Your task to perform on an android device: Clear all items from cart on walmart. Search for "logitech g903" on walmart, select the first entry, add it to the cart, then select checkout. Image 0: 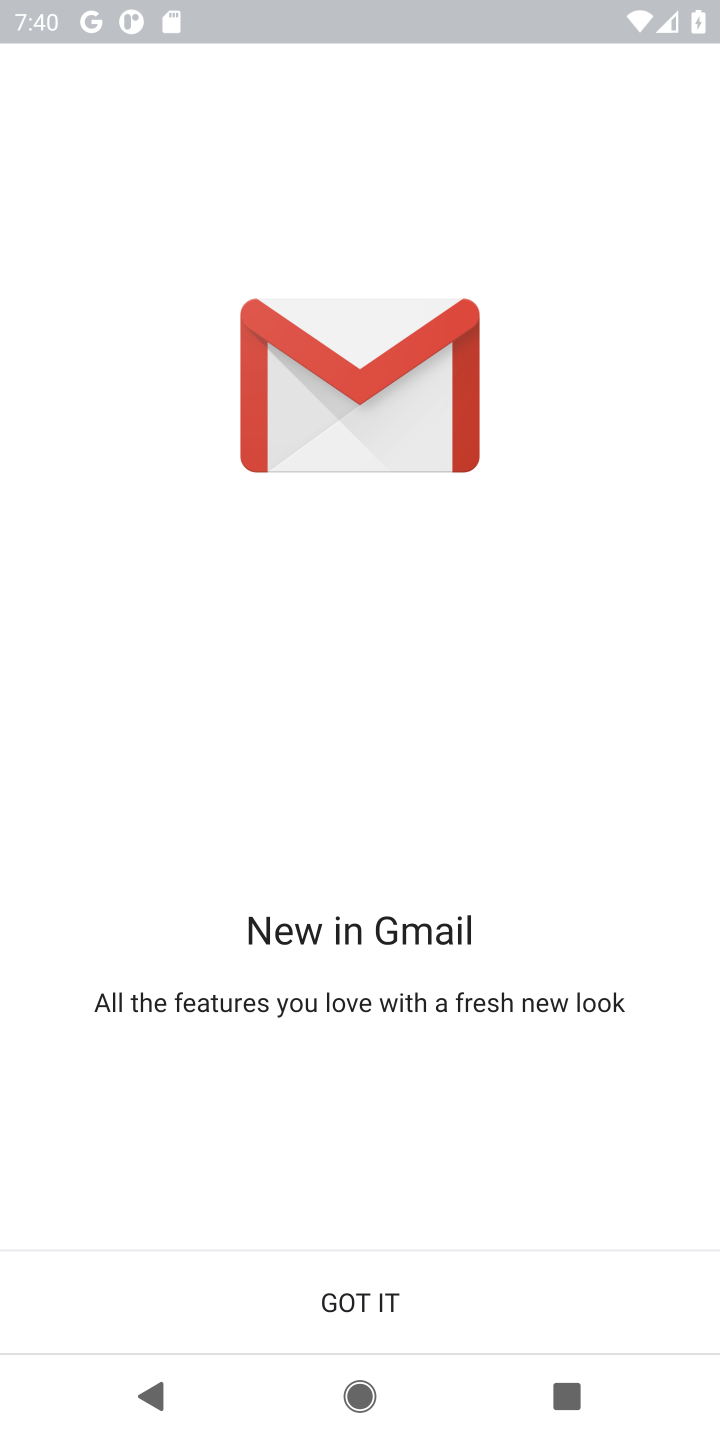
Step 0: press home button
Your task to perform on an android device: Clear all items from cart on walmart. Search for "logitech g903" on walmart, select the first entry, add it to the cart, then select checkout. Image 1: 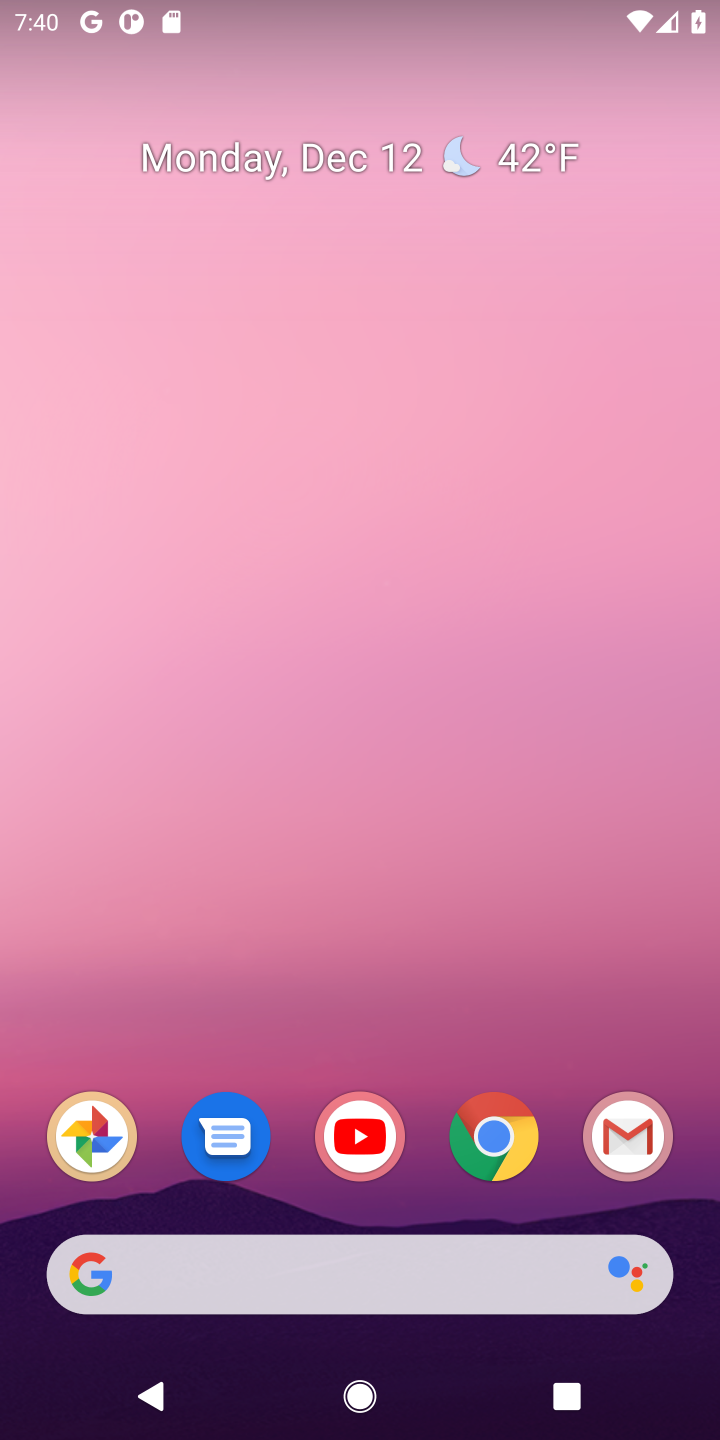
Step 1: click (506, 1156)
Your task to perform on an android device: Clear all items from cart on walmart. Search for "logitech g903" on walmart, select the first entry, add it to the cart, then select checkout. Image 2: 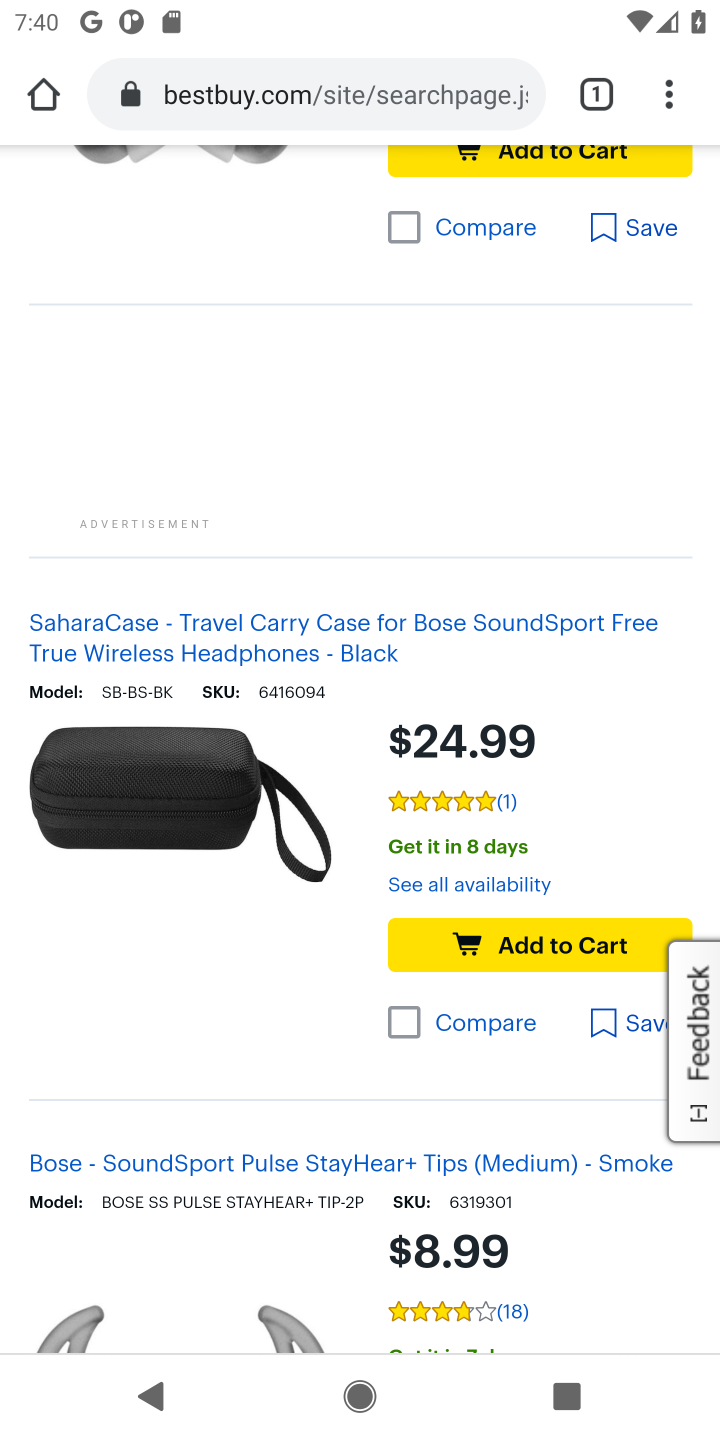
Step 2: click (339, 88)
Your task to perform on an android device: Clear all items from cart on walmart. Search for "logitech g903" on walmart, select the first entry, add it to the cart, then select checkout. Image 3: 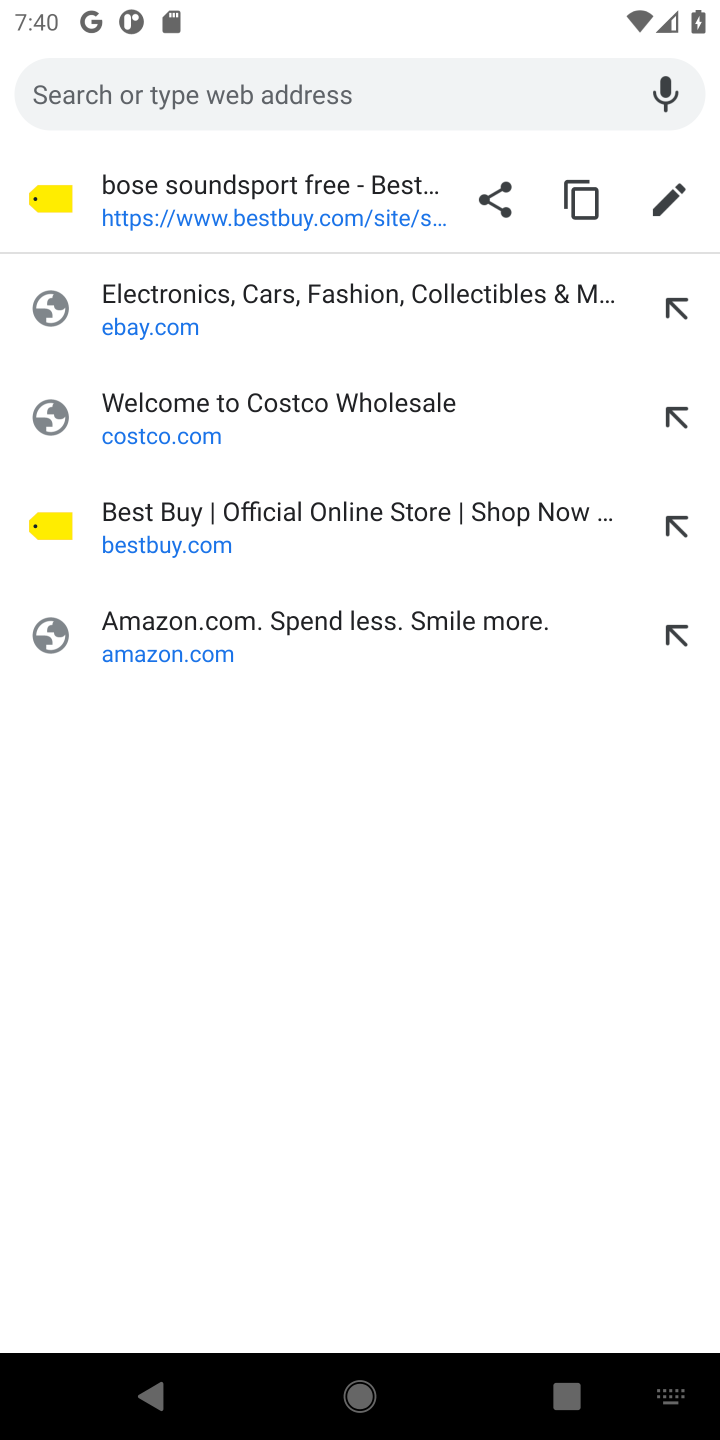
Step 3: type "walmart.com"
Your task to perform on an android device: Clear all items from cart on walmart. Search for "logitech g903" on walmart, select the first entry, add it to the cart, then select checkout. Image 4: 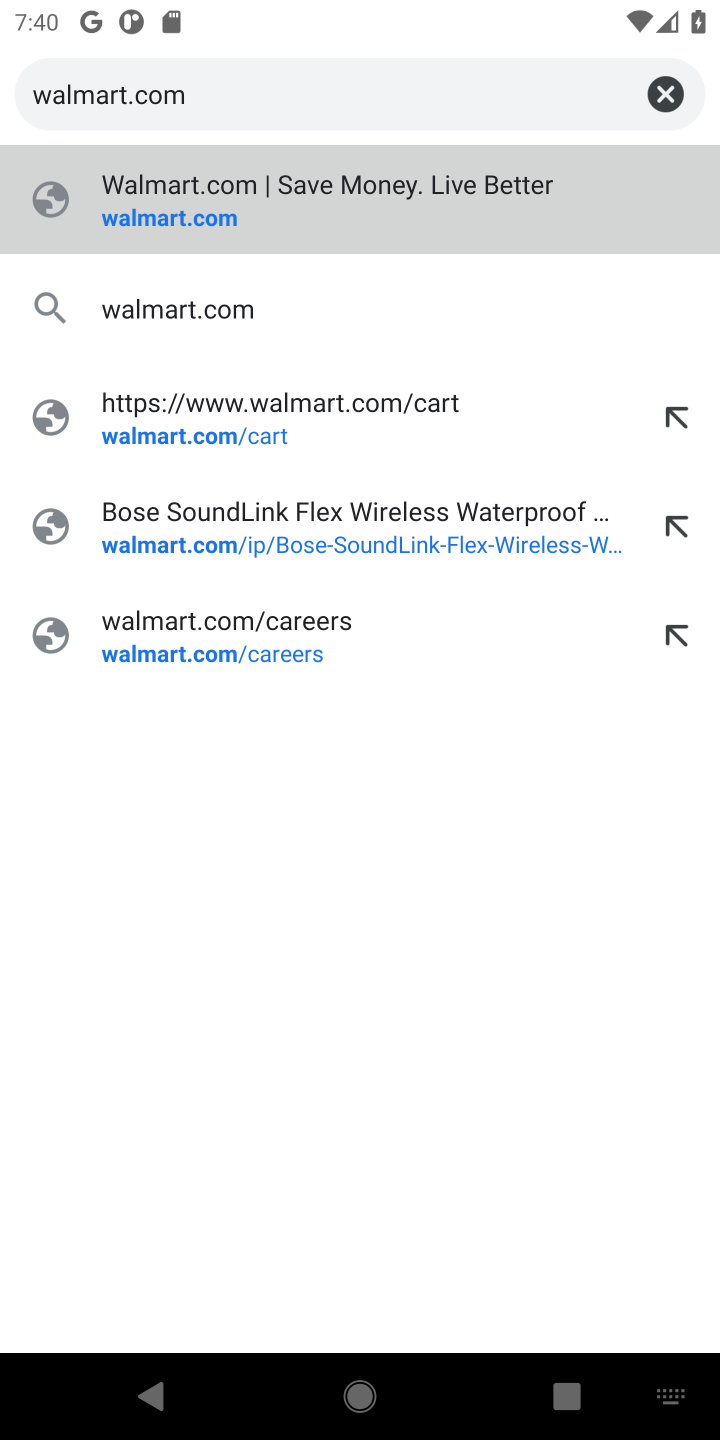
Step 4: click (181, 235)
Your task to perform on an android device: Clear all items from cart on walmart. Search for "logitech g903" on walmart, select the first entry, add it to the cart, then select checkout. Image 5: 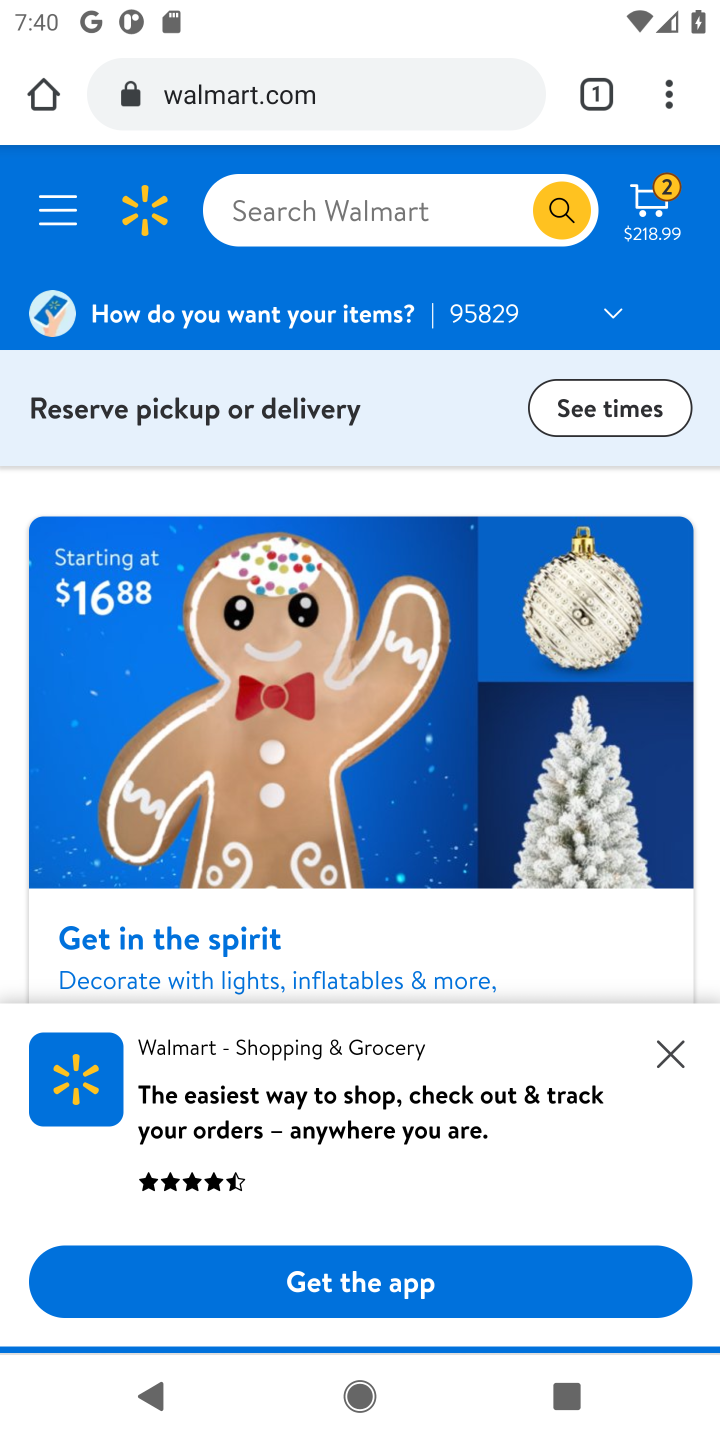
Step 5: click (638, 218)
Your task to perform on an android device: Clear all items from cart on walmart. Search for "logitech g903" on walmart, select the first entry, add it to the cart, then select checkout. Image 6: 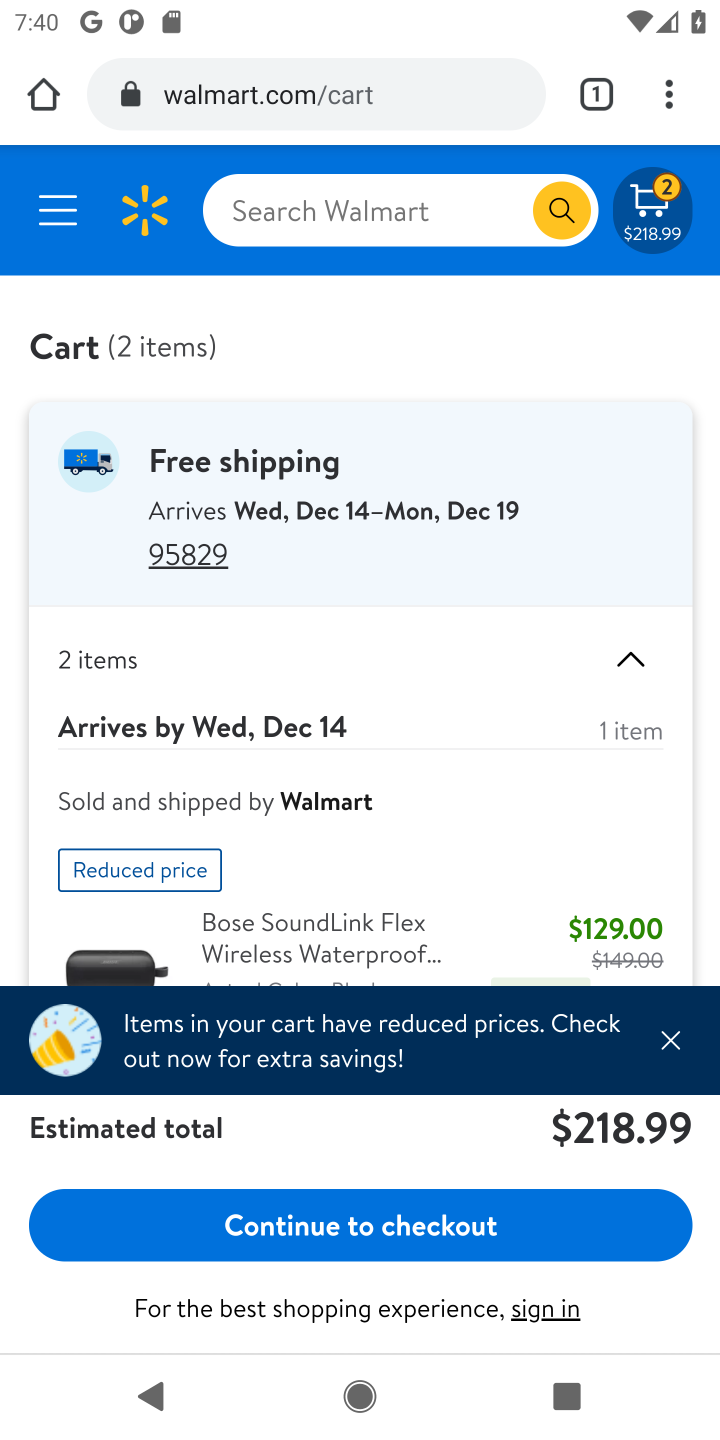
Step 6: drag from (317, 728) to (332, 366)
Your task to perform on an android device: Clear all items from cart on walmart. Search for "logitech g903" on walmart, select the first entry, add it to the cart, then select checkout. Image 7: 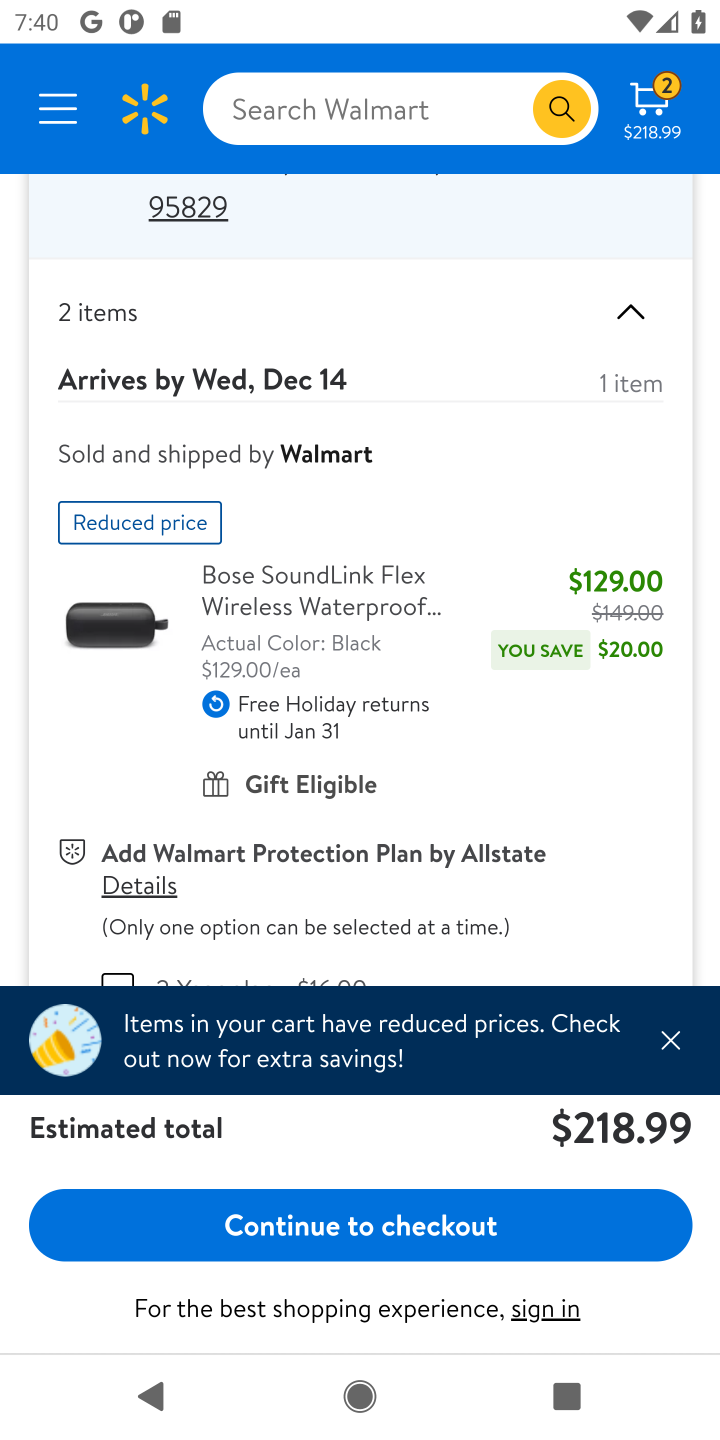
Step 7: drag from (170, 690) to (149, 389)
Your task to perform on an android device: Clear all items from cart on walmart. Search for "logitech g903" on walmart, select the first entry, add it to the cart, then select checkout. Image 8: 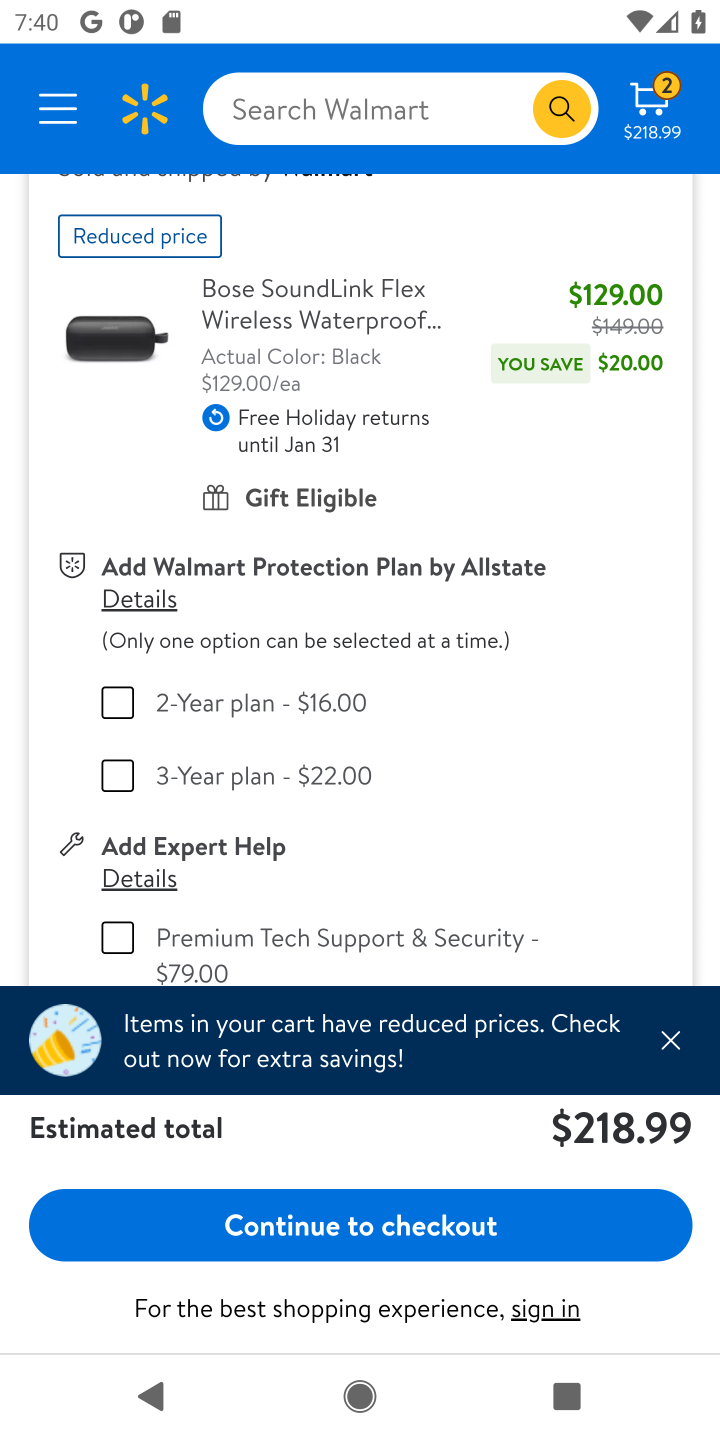
Step 8: drag from (362, 793) to (350, 442)
Your task to perform on an android device: Clear all items from cart on walmart. Search for "logitech g903" on walmart, select the first entry, add it to the cart, then select checkout. Image 9: 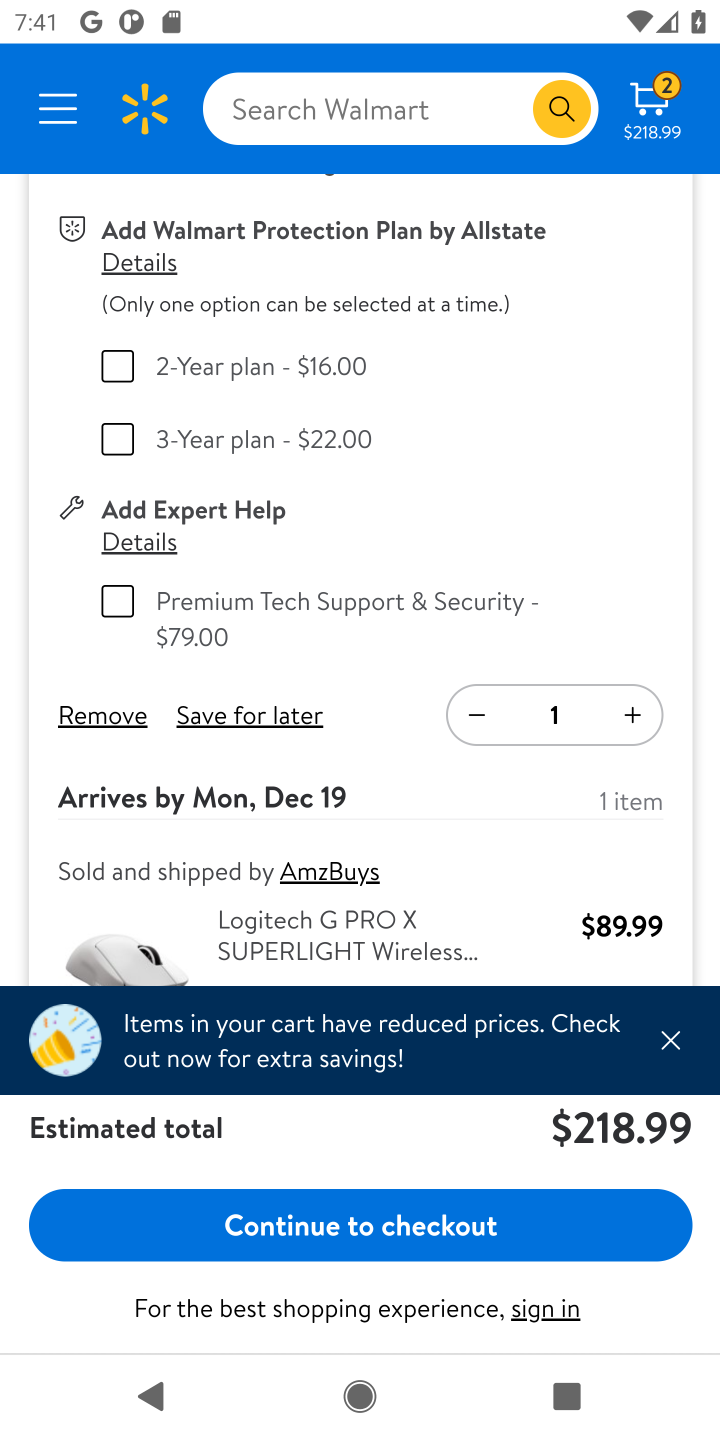
Step 9: click (82, 725)
Your task to perform on an android device: Clear all items from cart on walmart. Search for "logitech g903" on walmart, select the first entry, add it to the cart, then select checkout. Image 10: 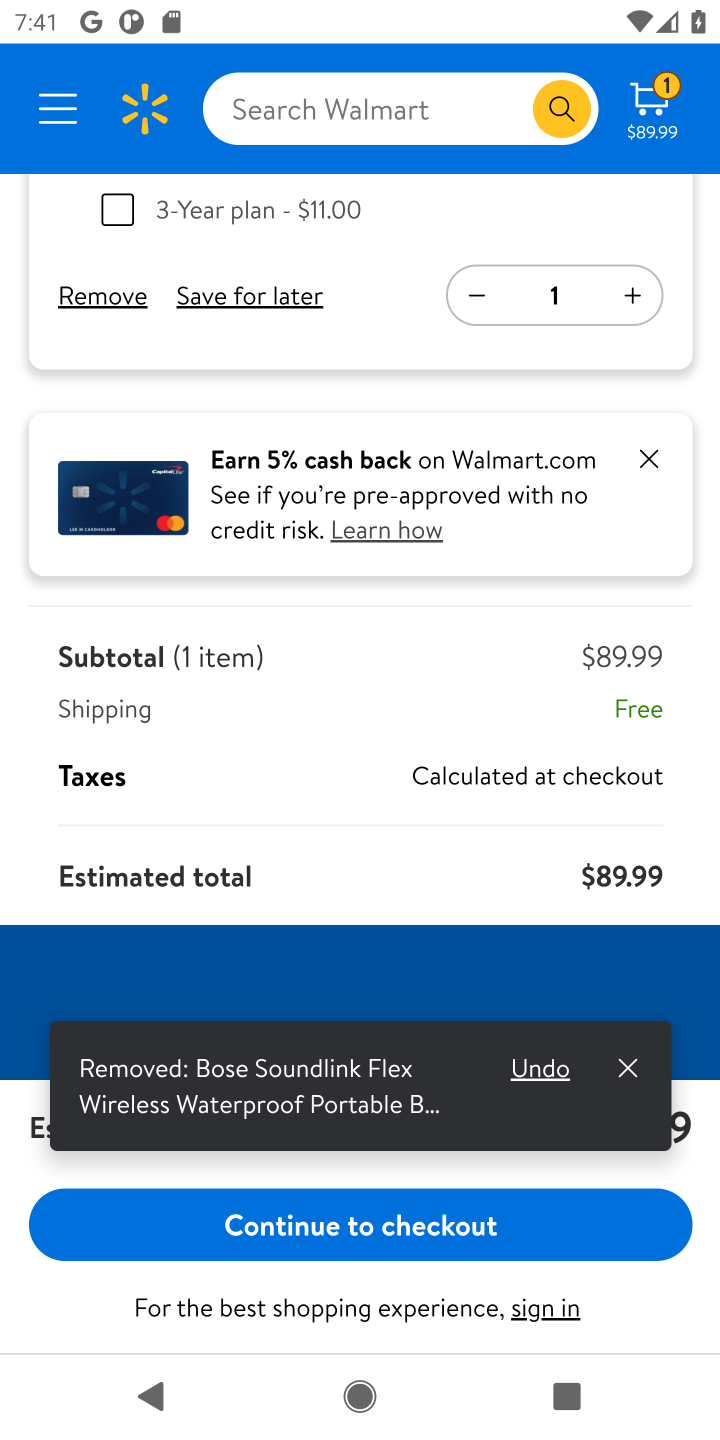
Step 10: click (75, 299)
Your task to perform on an android device: Clear all items from cart on walmart. Search for "logitech g903" on walmart, select the first entry, add it to the cart, then select checkout. Image 11: 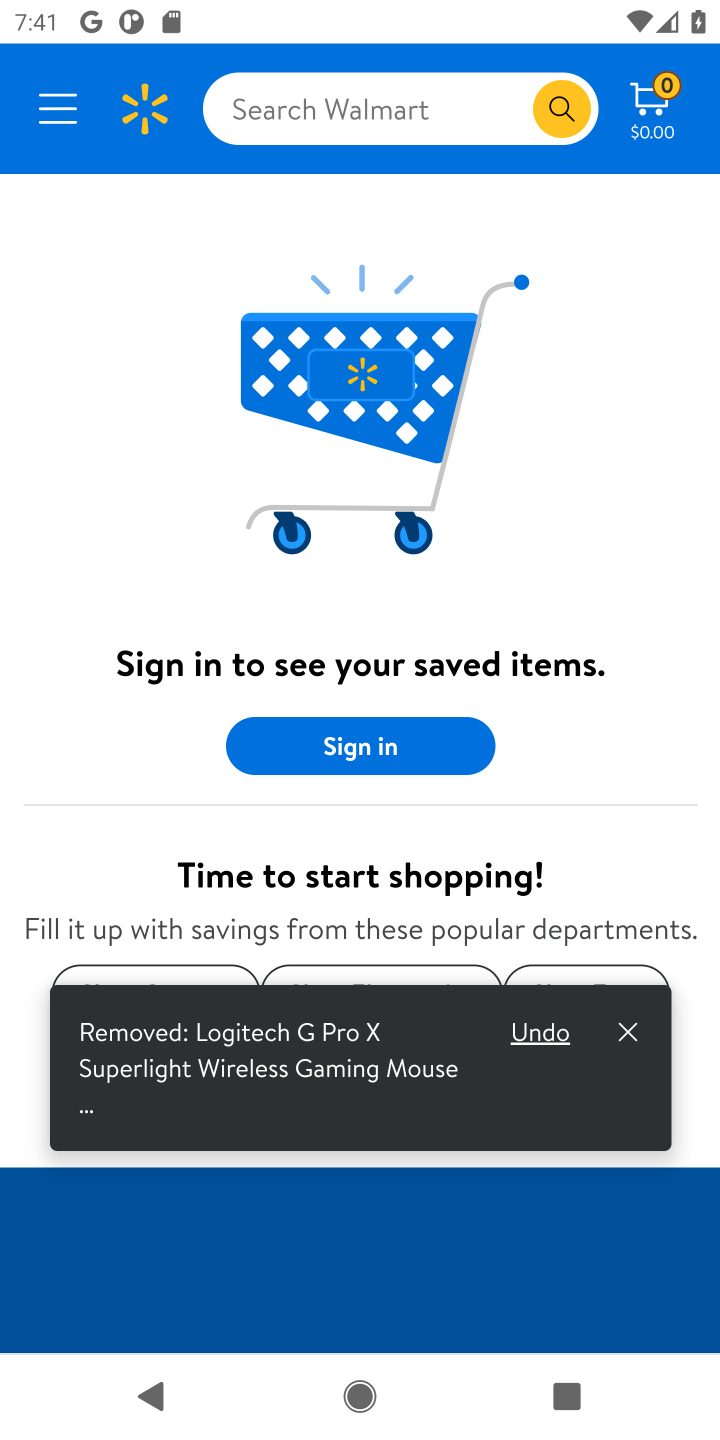
Step 11: drag from (275, 872) to (280, 547)
Your task to perform on an android device: Clear all items from cart on walmart. Search for "logitech g903" on walmart, select the first entry, add it to the cart, then select checkout. Image 12: 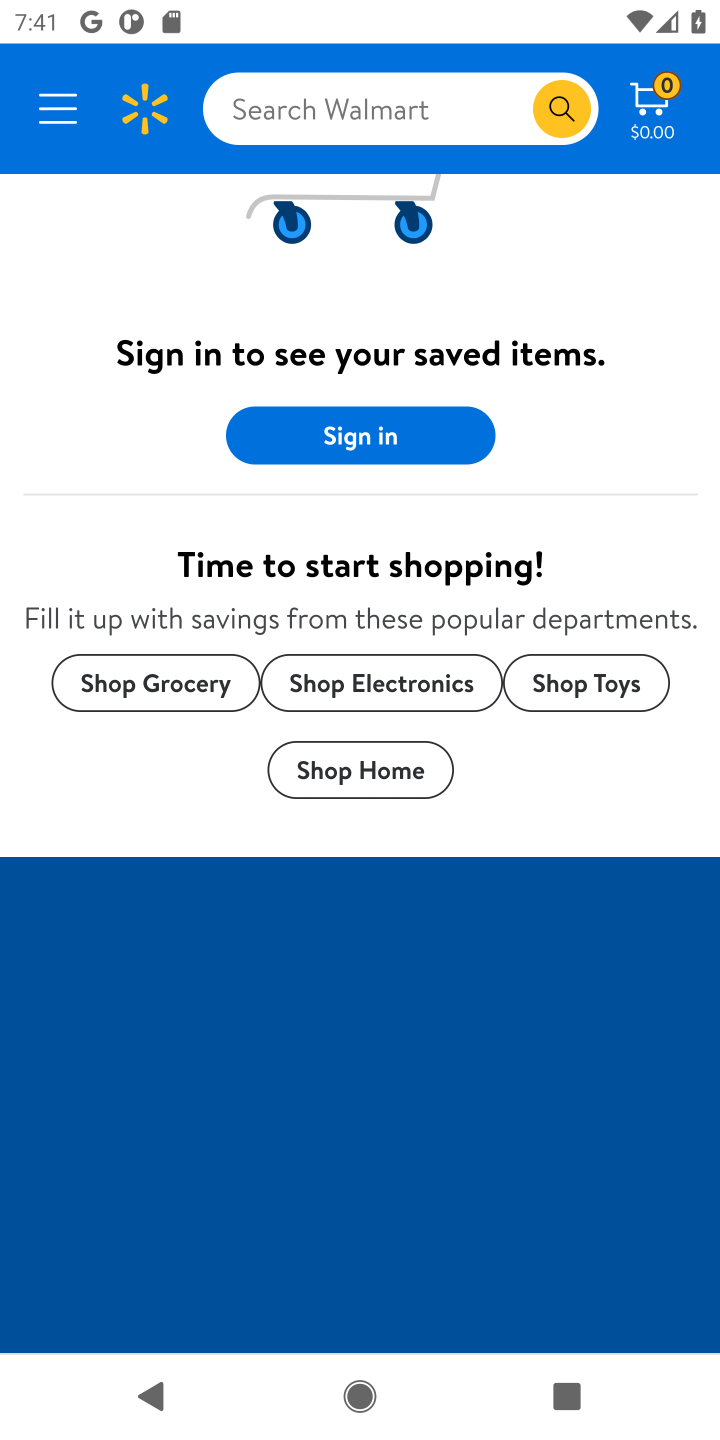
Step 12: click (320, 111)
Your task to perform on an android device: Clear all items from cart on walmart. Search for "logitech g903" on walmart, select the first entry, add it to the cart, then select checkout. Image 13: 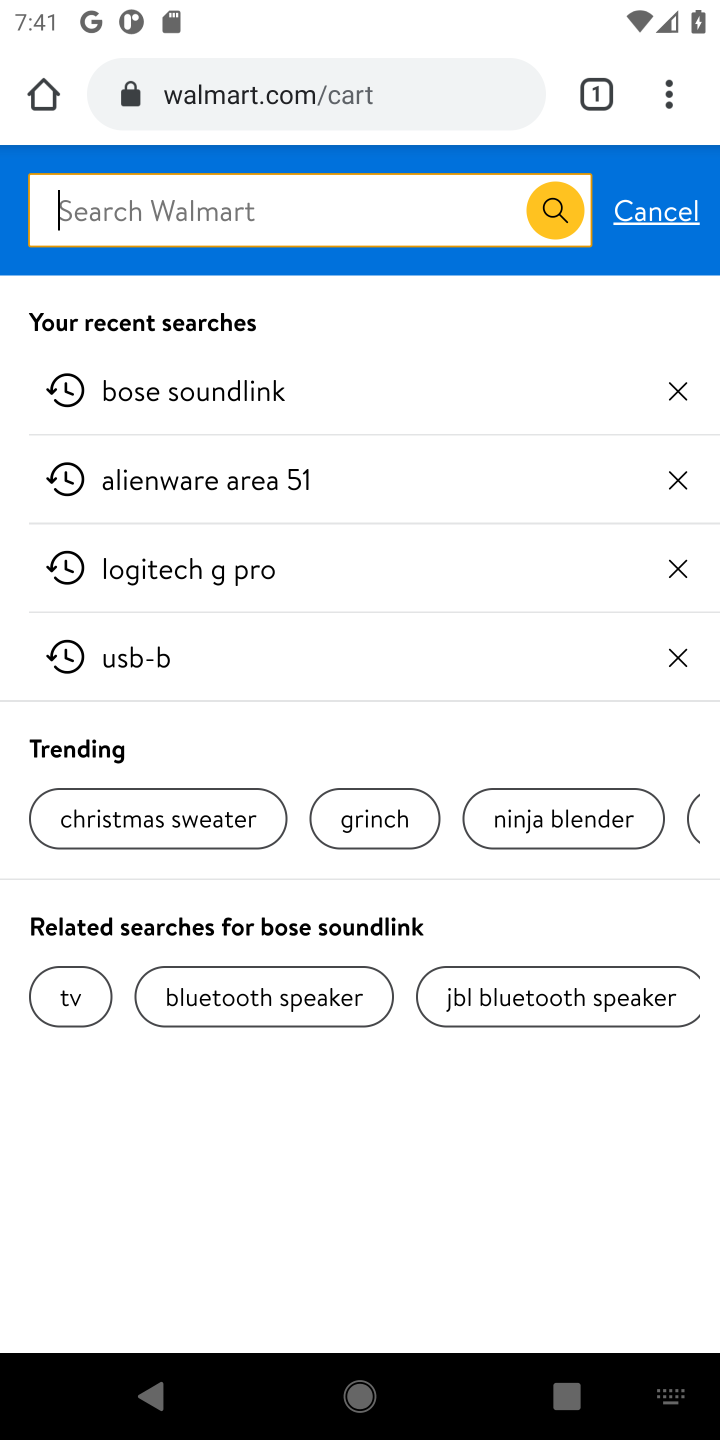
Step 13: type "logitech g903"
Your task to perform on an android device: Clear all items from cart on walmart. Search for "logitech g903" on walmart, select the first entry, add it to the cart, then select checkout. Image 14: 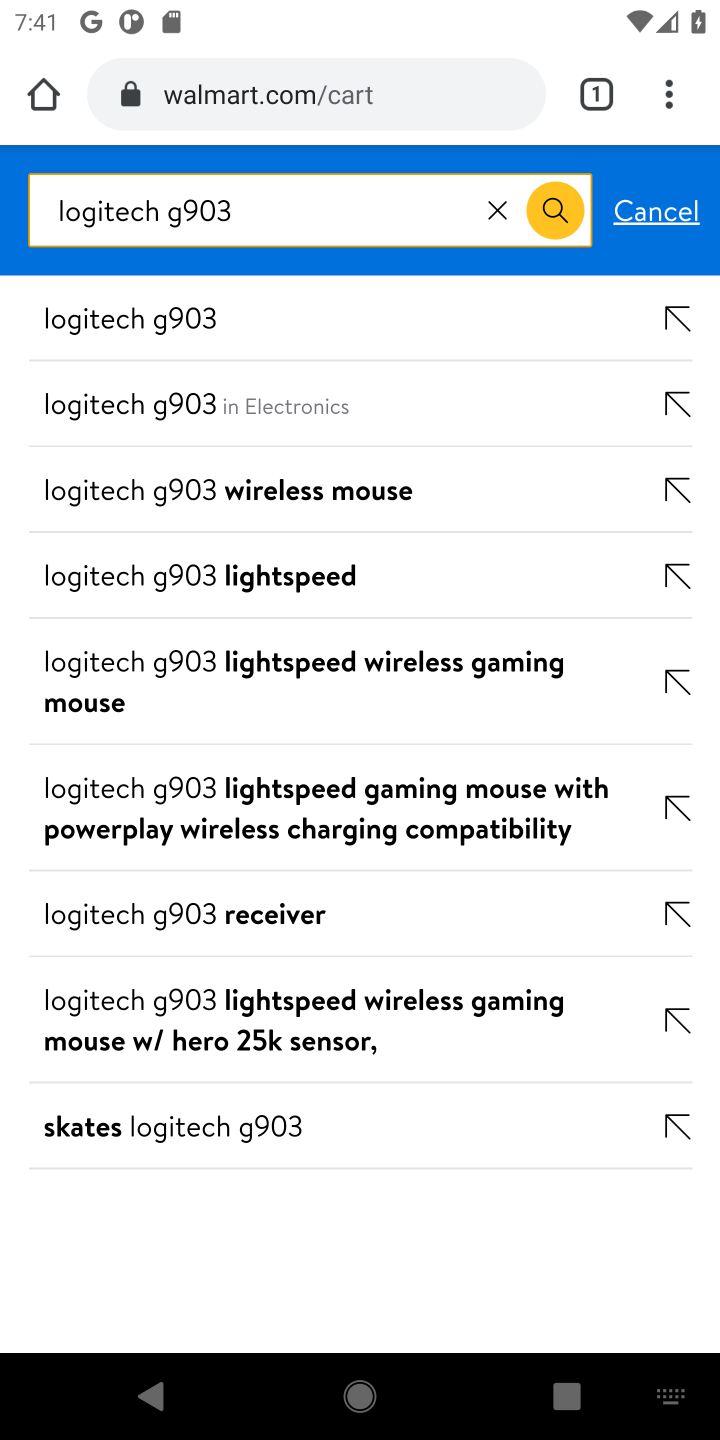
Step 14: click (179, 331)
Your task to perform on an android device: Clear all items from cart on walmart. Search for "logitech g903" on walmart, select the first entry, add it to the cart, then select checkout. Image 15: 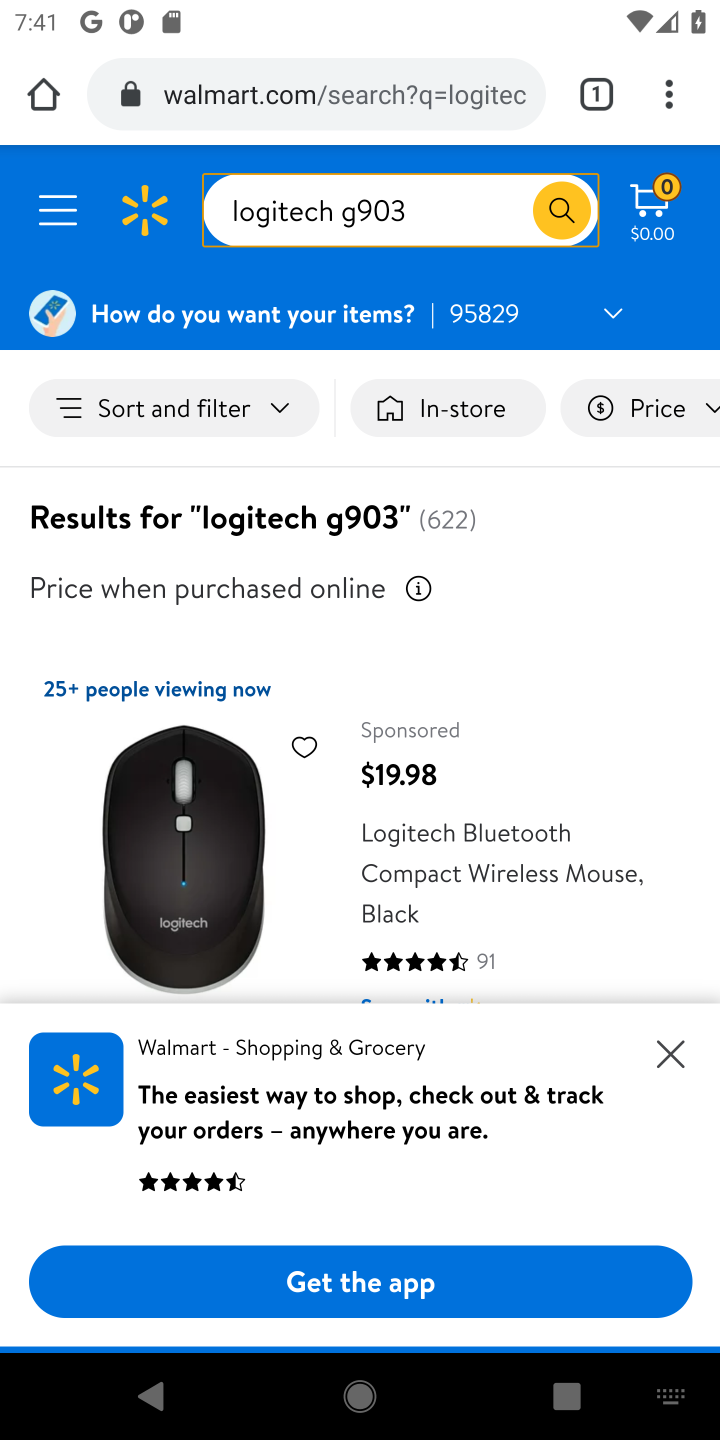
Step 15: task complete